Your task to perform on an android device: Open Maps and search for coffee Image 0: 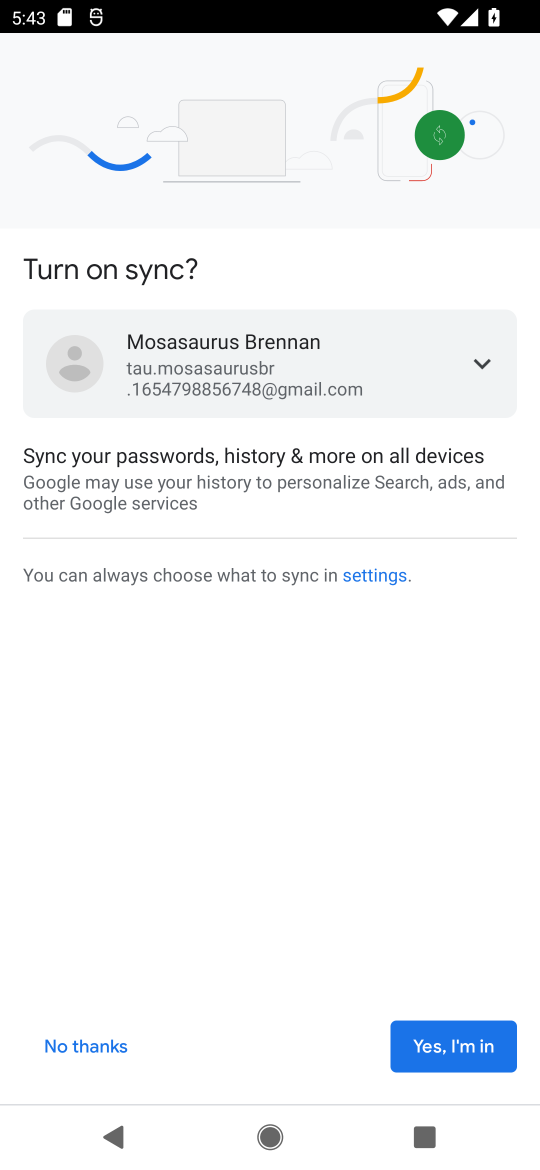
Step 0: press home button
Your task to perform on an android device: Open Maps and search for coffee Image 1: 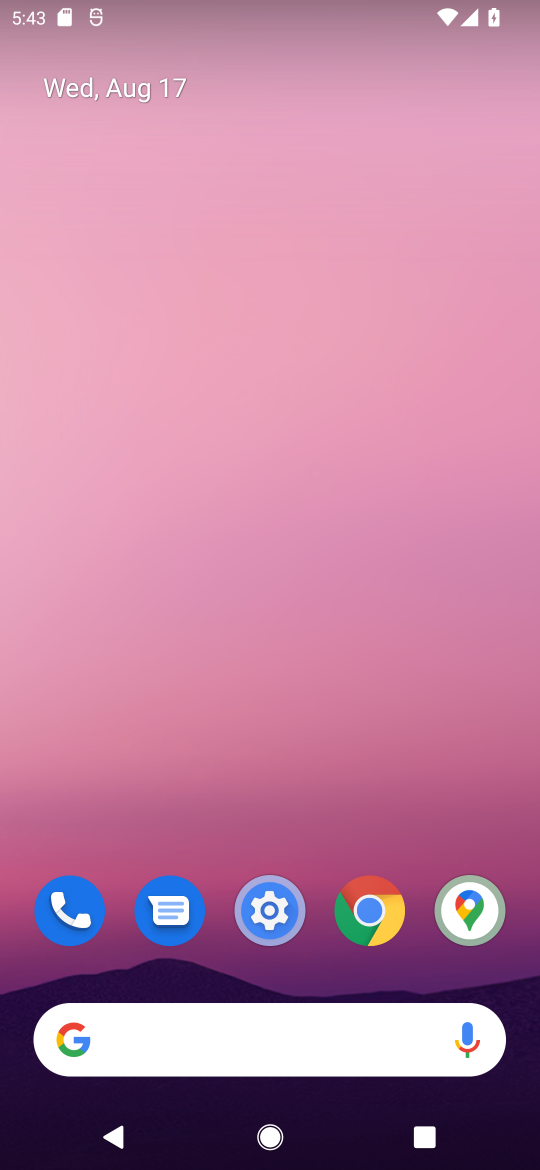
Step 1: task complete